Your task to perform on an android device: toggle wifi Image 0: 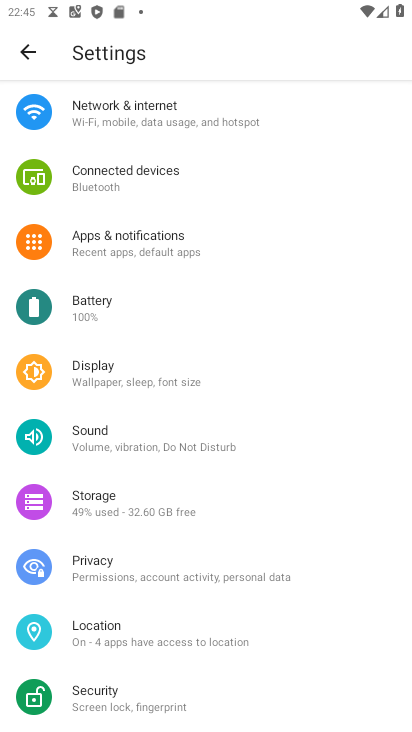
Step 0: click (149, 105)
Your task to perform on an android device: toggle wifi Image 1: 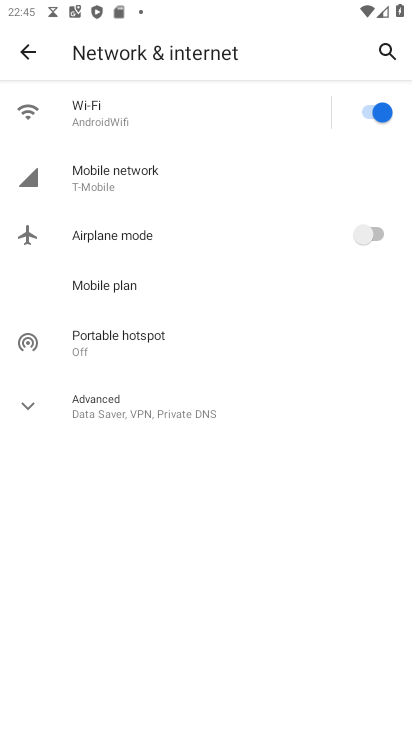
Step 1: click (372, 112)
Your task to perform on an android device: toggle wifi Image 2: 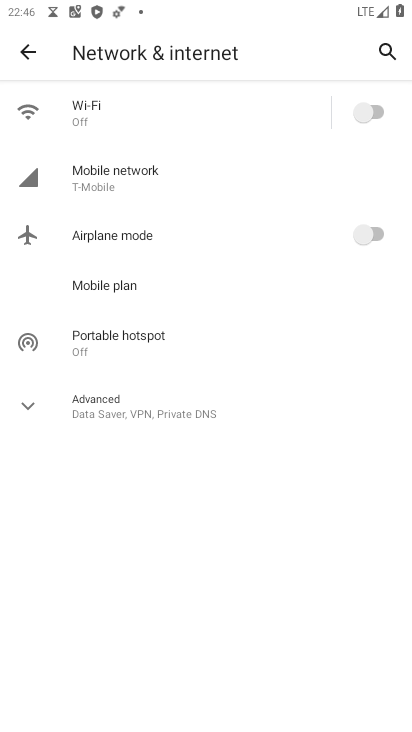
Step 2: task complete